Your task to perform on an android device: Open Google Maps Image 0: 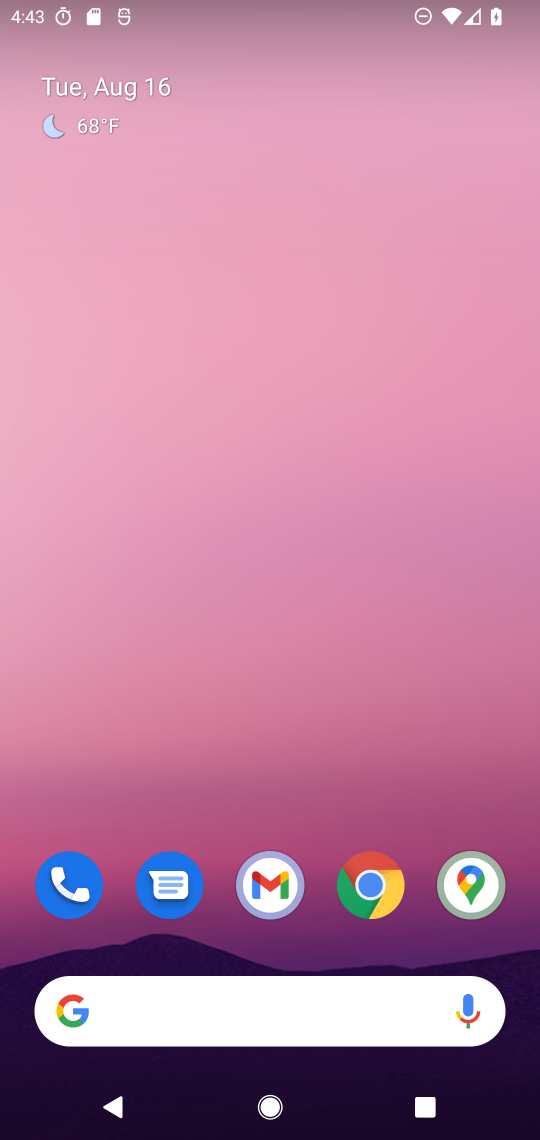
Step 0: click (467, 888)
Your task to perform on an android device: Open Google Maps Image 1: 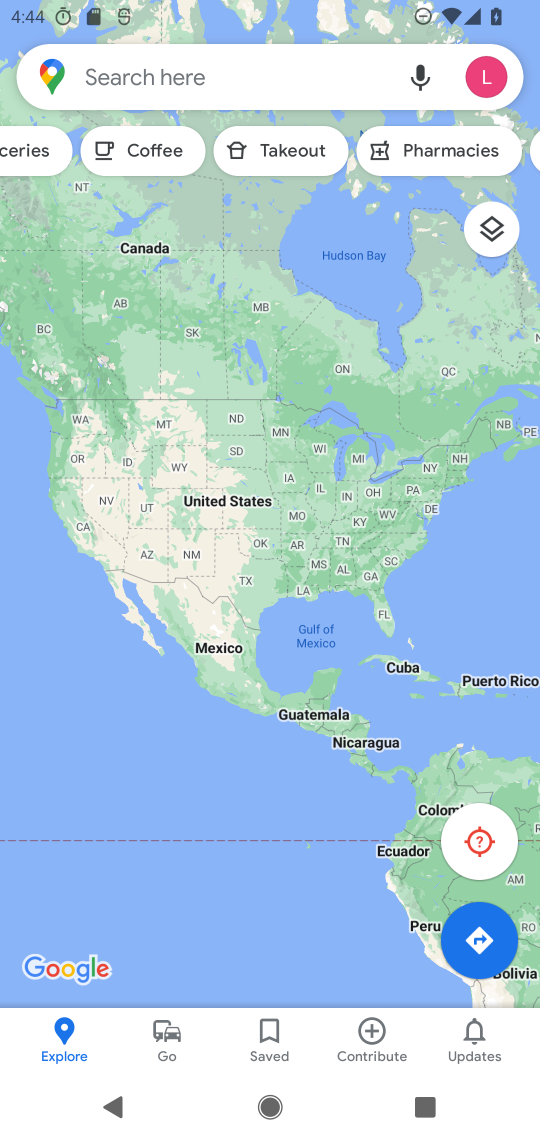
Step 1: task complete